Your task to perform on an android device: Open network settings Image 0: 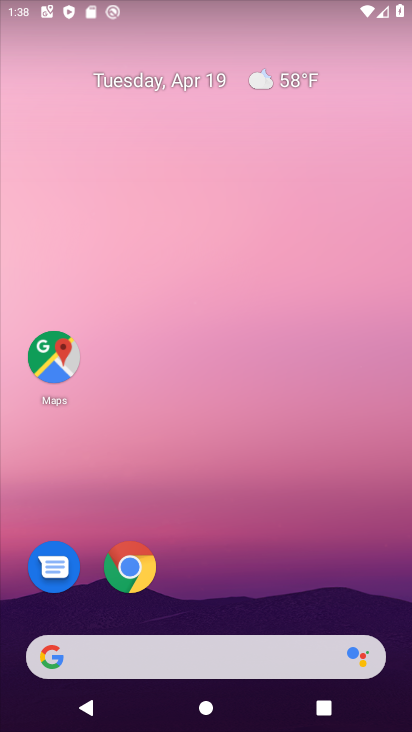
Step 0: drag from (284, 551) to (292, 221)
Your task to perform on an android device: Open network settings Image 1: 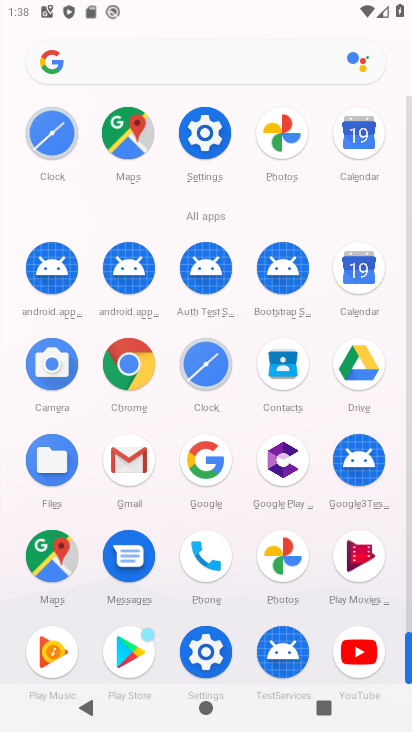
Step 1: click (202, 141)
Your task to perform on an android device: Open network settings Image 2: 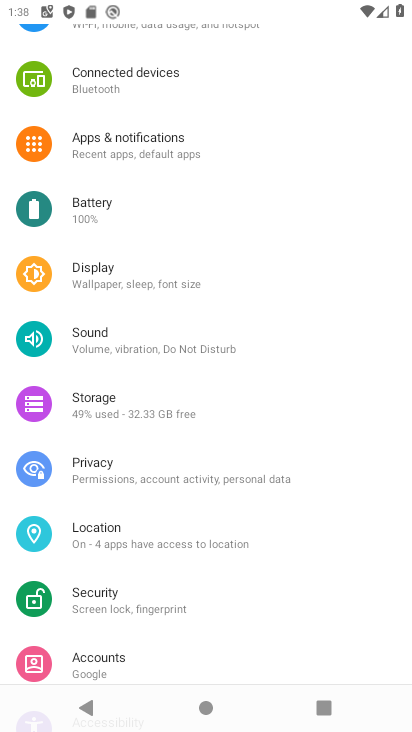
Step 2: drag from (223, 128) to (207, 351)
Your task to perform on an android device: Open network settings Image 3: 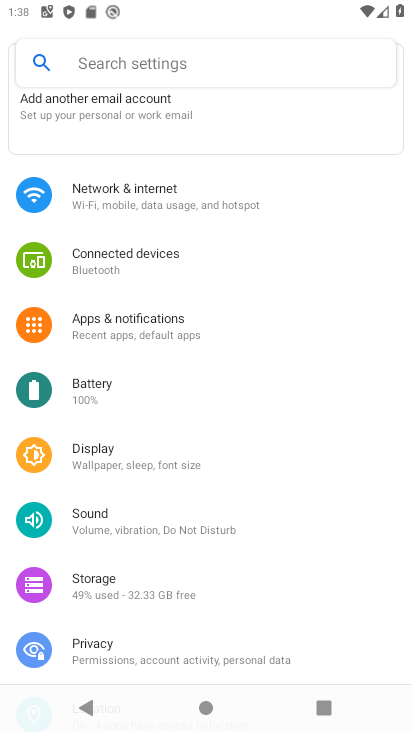
Step 3: click (188, 190)
Your task to perform on an android device: Open network settings Image 4: 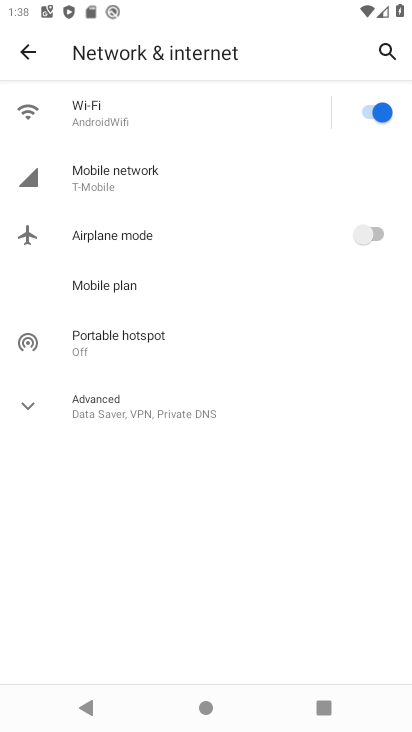
Step 4: task complete